Your task to perform on an android device: uninstall "Viber Messenger" Image 0: 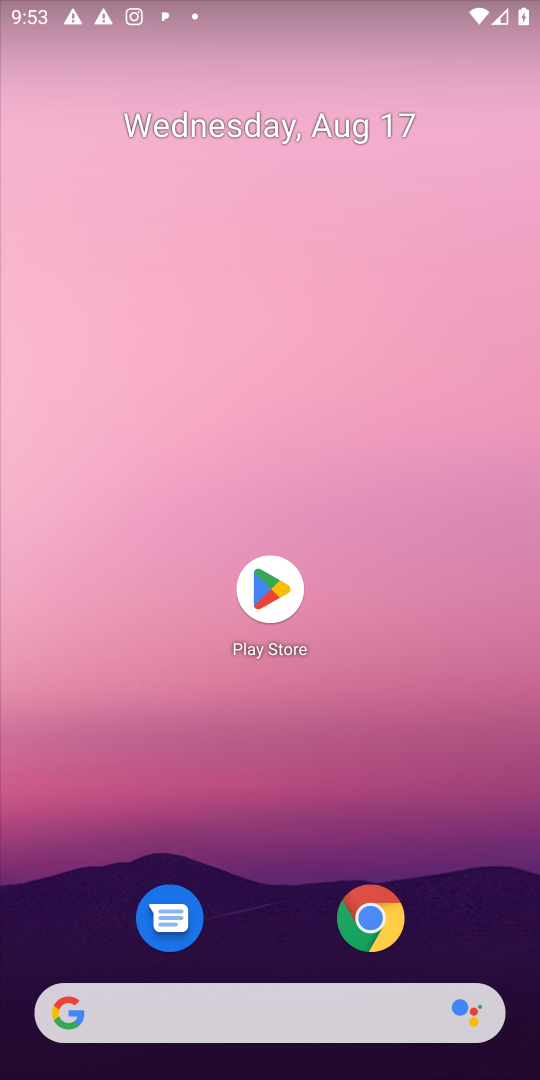
Step 0: click (272, 592)
Your task to perform on an android device: uninstall "Viber Messenger" Image 1: 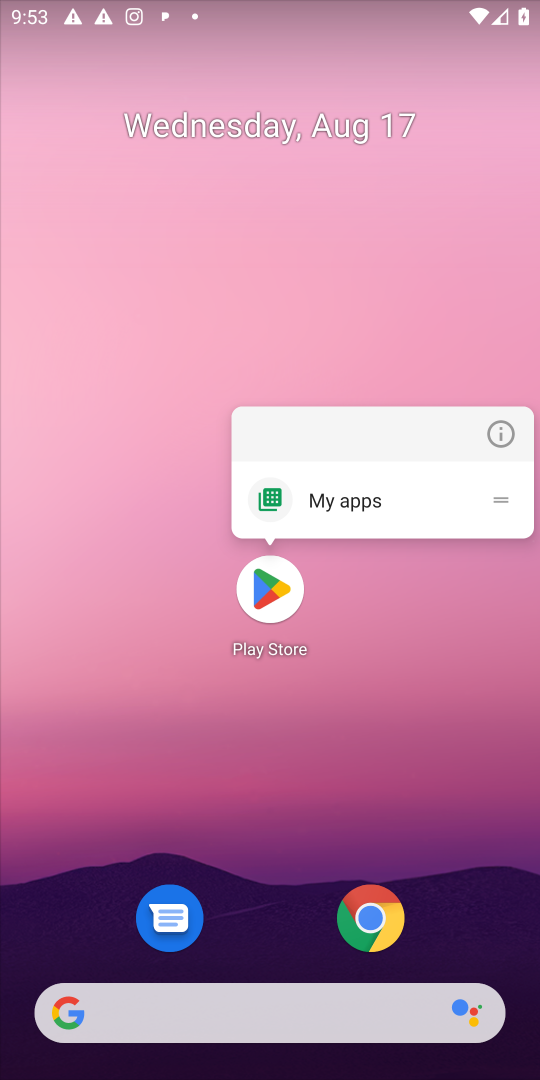
Step 1: click (272, 592)
Your task to perform on an android device: uninstall "Viber Messenger" Image 2: 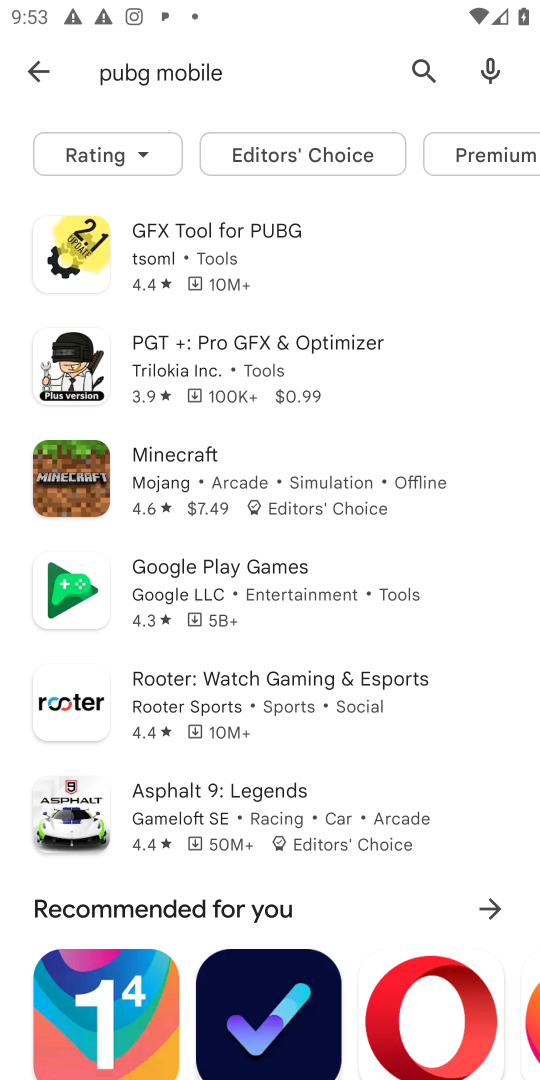
Step 2: click (422, 73)
Your task to perform on an android device: uninstall "Viber Messenger" Image 3: 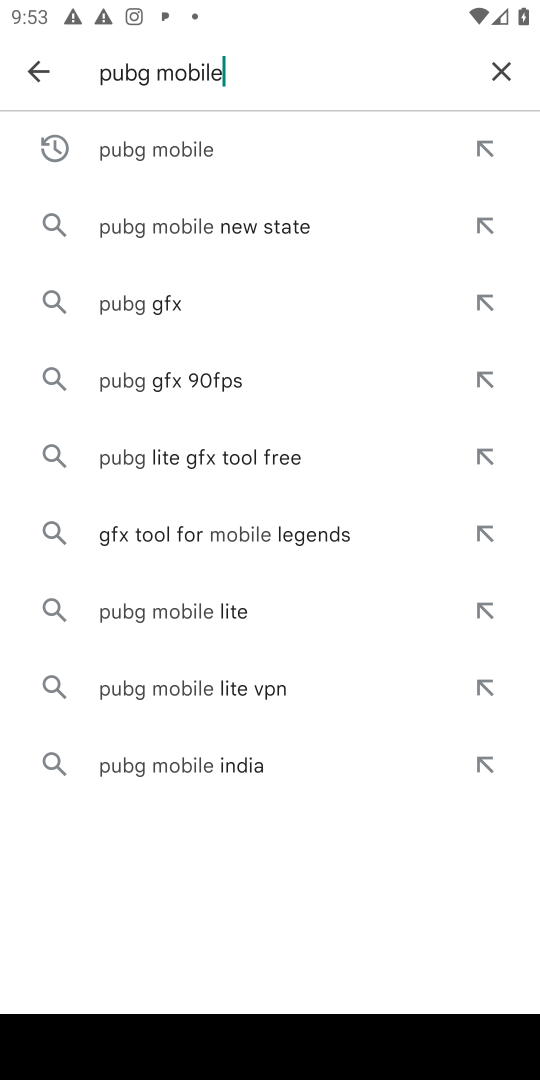
Step 3: click (501, 59)
Your task to perform on an android device: uninstall "Viber Messenger" Image 4: 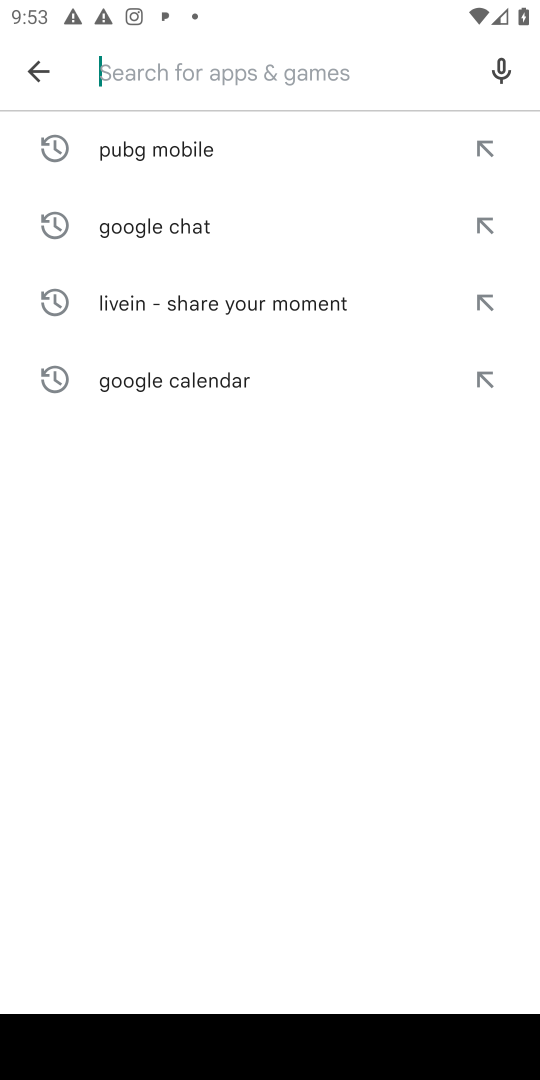
Step 4: type "Viber Messenger"
Your task to perform on an android device: uninstall "Viber Messenger" Image 5: 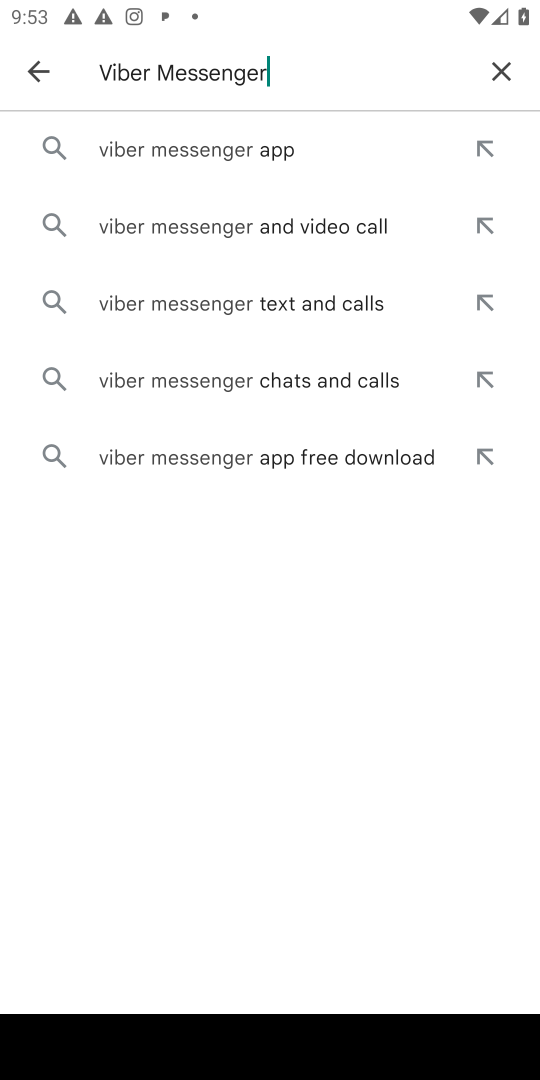
Step 5: click (206, 148)
Your task to perform on an android device: uninstall "Viber Messenger" Image 6: 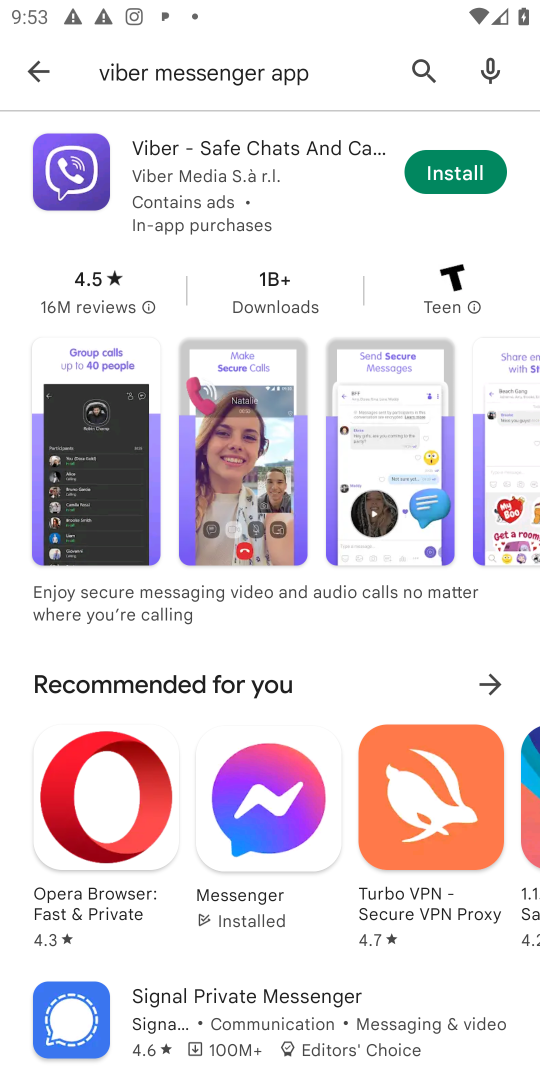
Step 6: task complete